Your task to perform on an android device: View the shopping cart on amazon. Search for "apple airpods" on amazon, select the first entry, add it to the cart, then select checkout. Image 0: 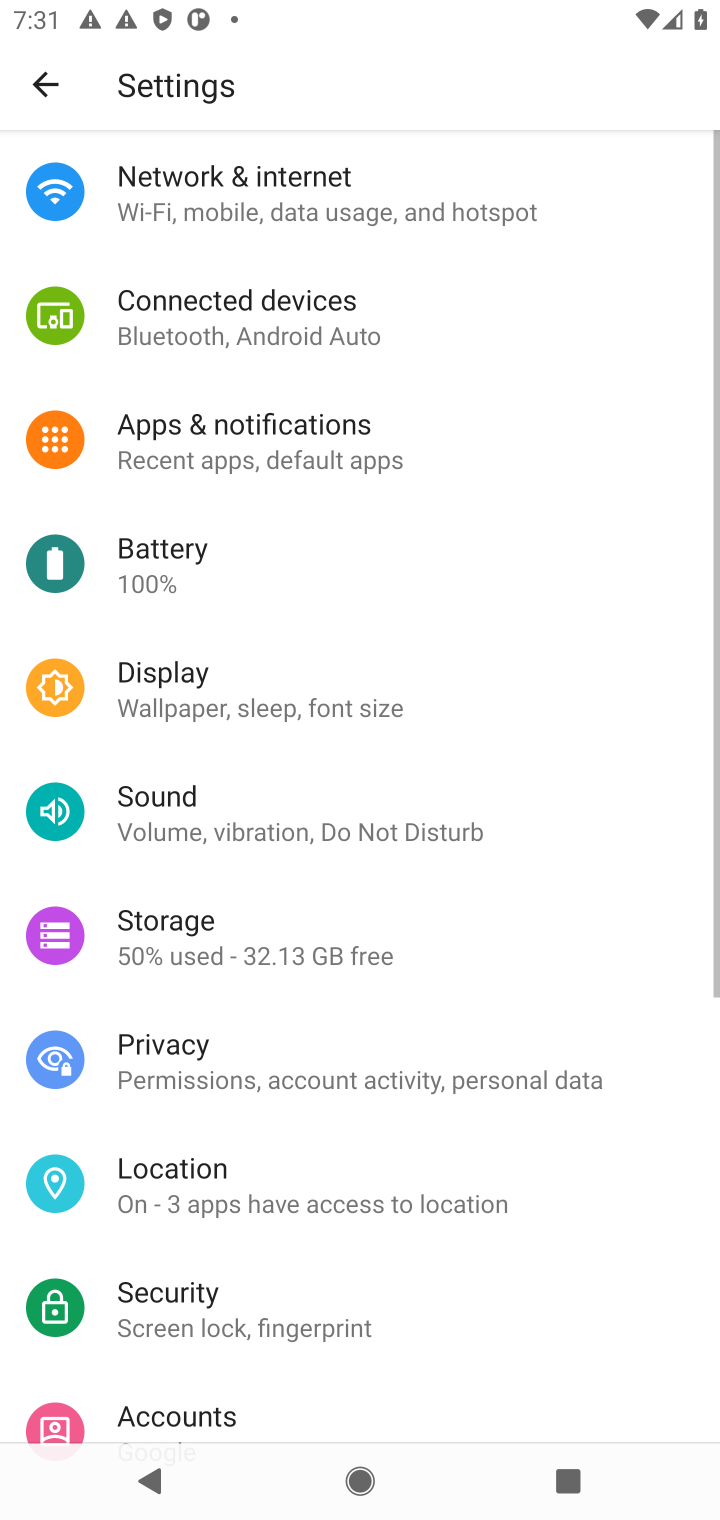
Step 0: press home button
Your task to perform on an android device: View the shopping cart on amazon. Search for "apple airpods" on amazon, select the first entry, add it to the cart, then select checkout. Image 1: 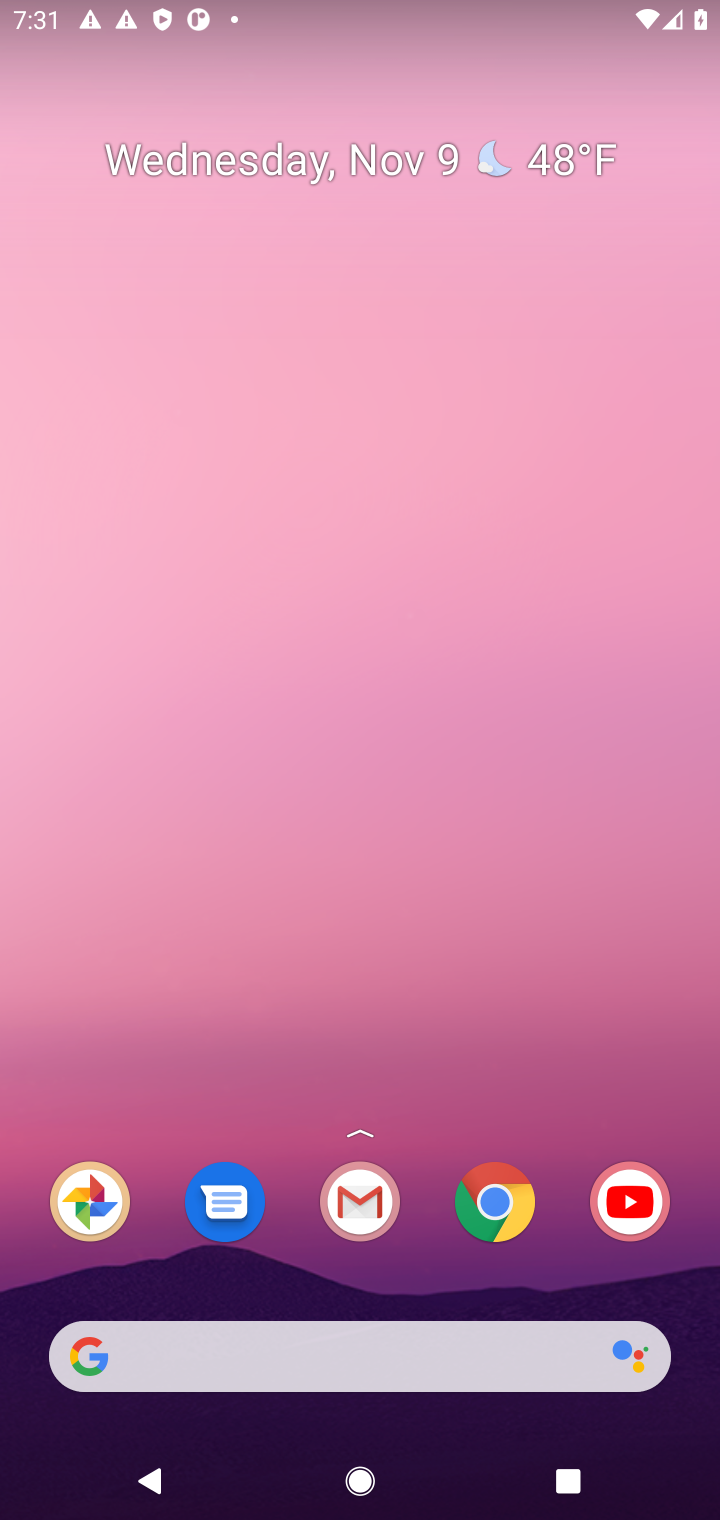
Step 1: click (506, 1212)
Your task to perform on an android device: View the shopping cart on amazon. Search for "apple airpods" on amazon, select the first entry, add it to the cart, then select checkout. Image 2: 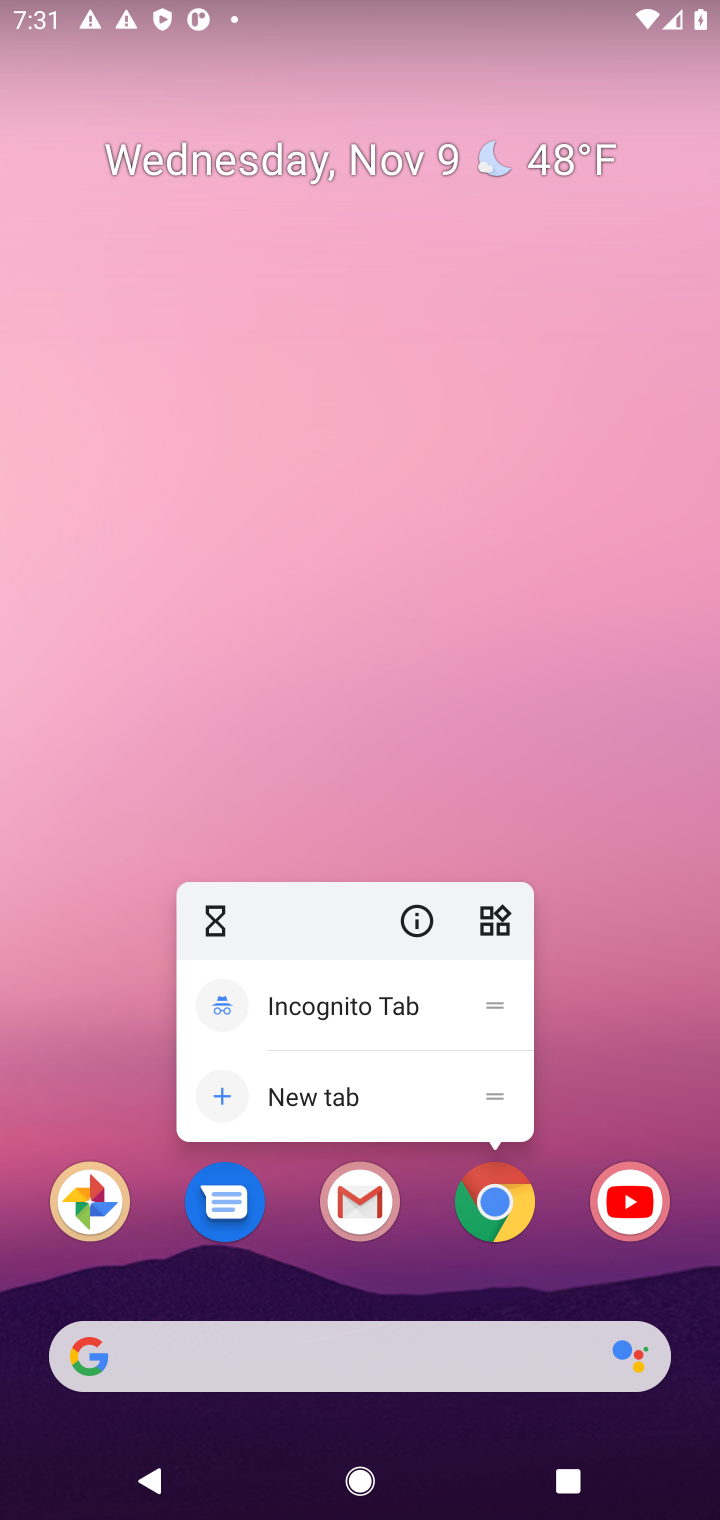
Step 2: click (506, 1212)
Your task to perform on an android device: View the shopping cart on amazon. Search for "apple airpods" on amazon, select the first entry, add it to the cart, then select checkout. Image 3: 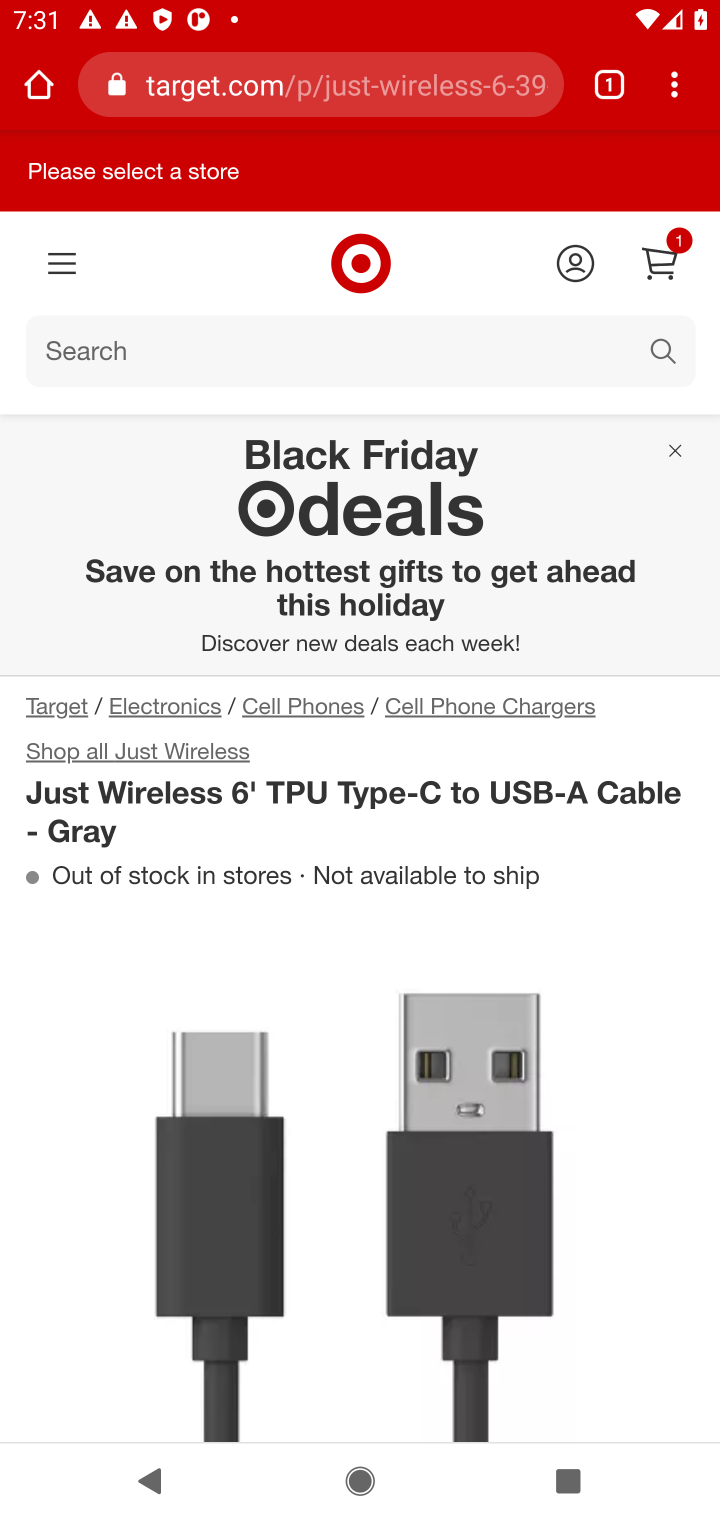
Step 3: click (440, 91)
Your task to perform on an android device: View the shopping cart on amazon. Search for "apple airpods" on amazon, select the first entry, add it to the cart, then select checkout. Image 4: 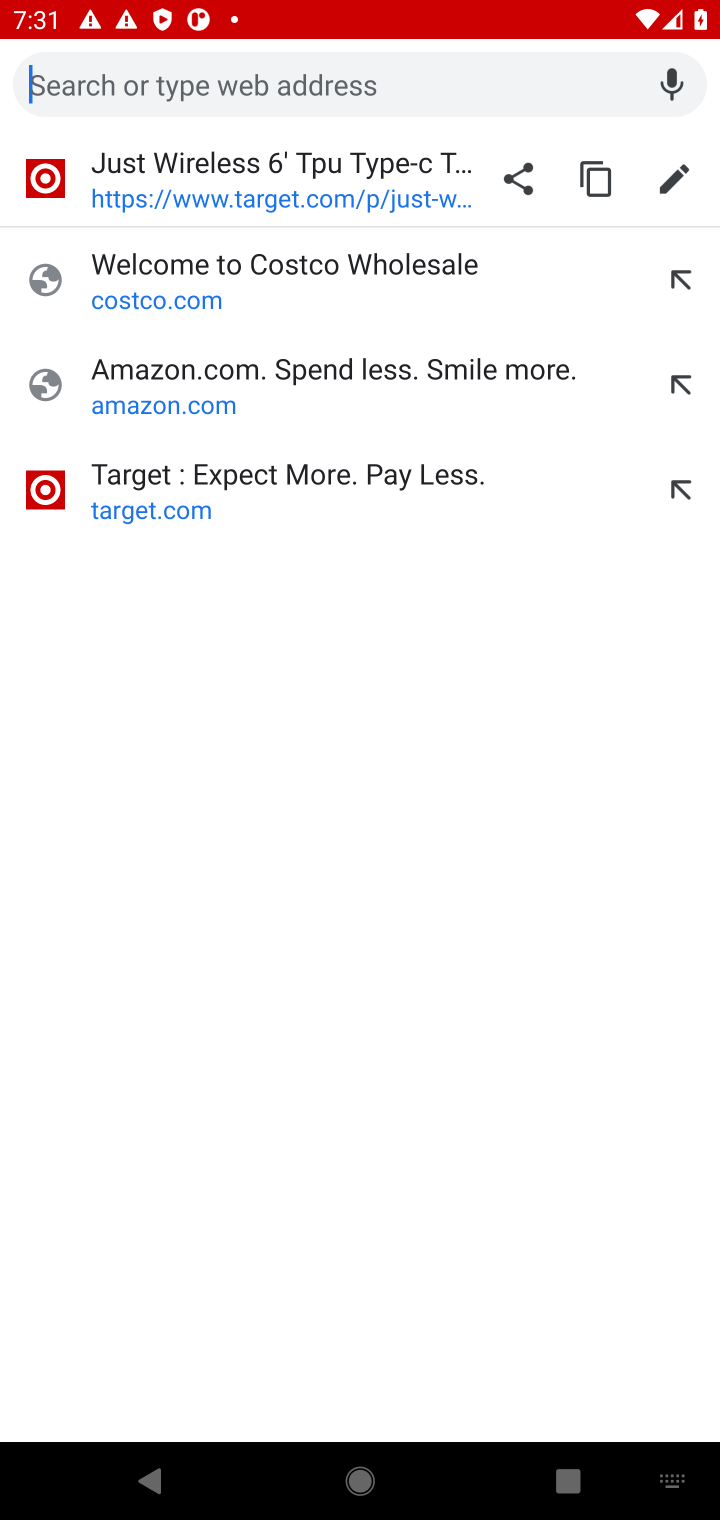
Step 4: click (111, 372)
Your task to perform on an android device: View the shopping cart on amazon. Search for "apple airpods" on amazon, select the first entry, add it to the cart, then select checkout. Image 5: 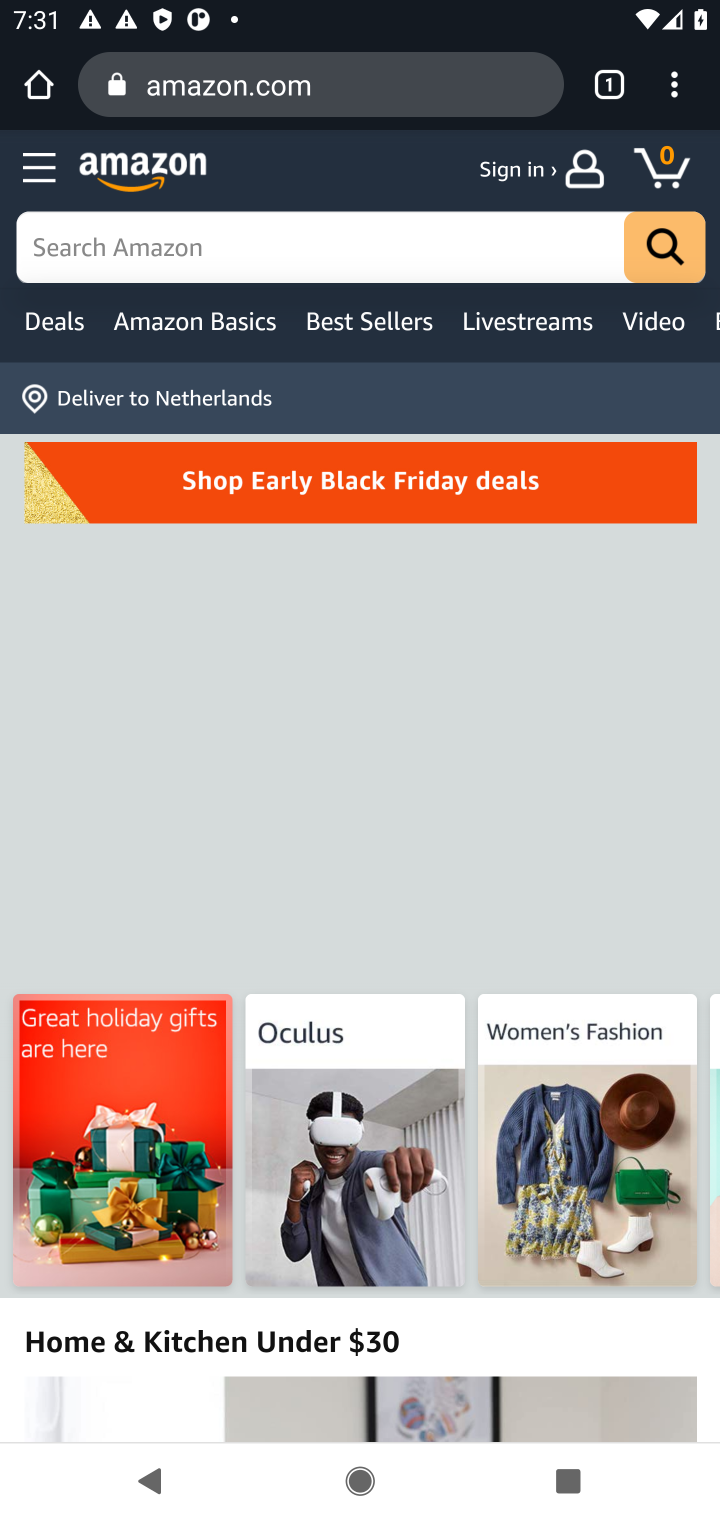
Step 5: click (169, 256)
Your task to perform on an android device: View the shopping cart on amazon. Search for "apple airpods" on amazon, select the first entry, add it to the cart, then select checkout. Image 6: 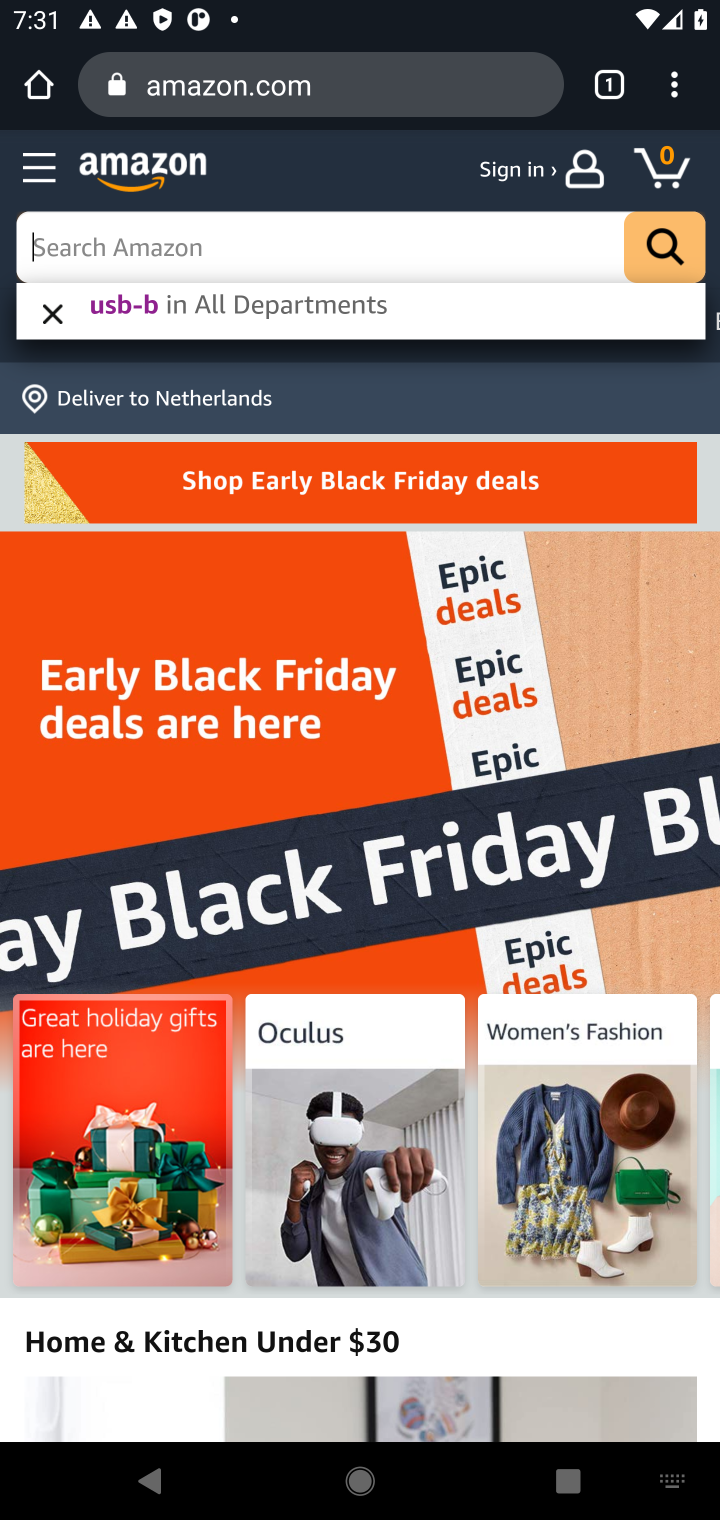
Step 6: type "apple airpods"
Your task to perform on an android device: View the shopping cart on amazon. Search for "apple airpods" on amazon, select the first entry, add it to the cart, then select checkout. Image 7: 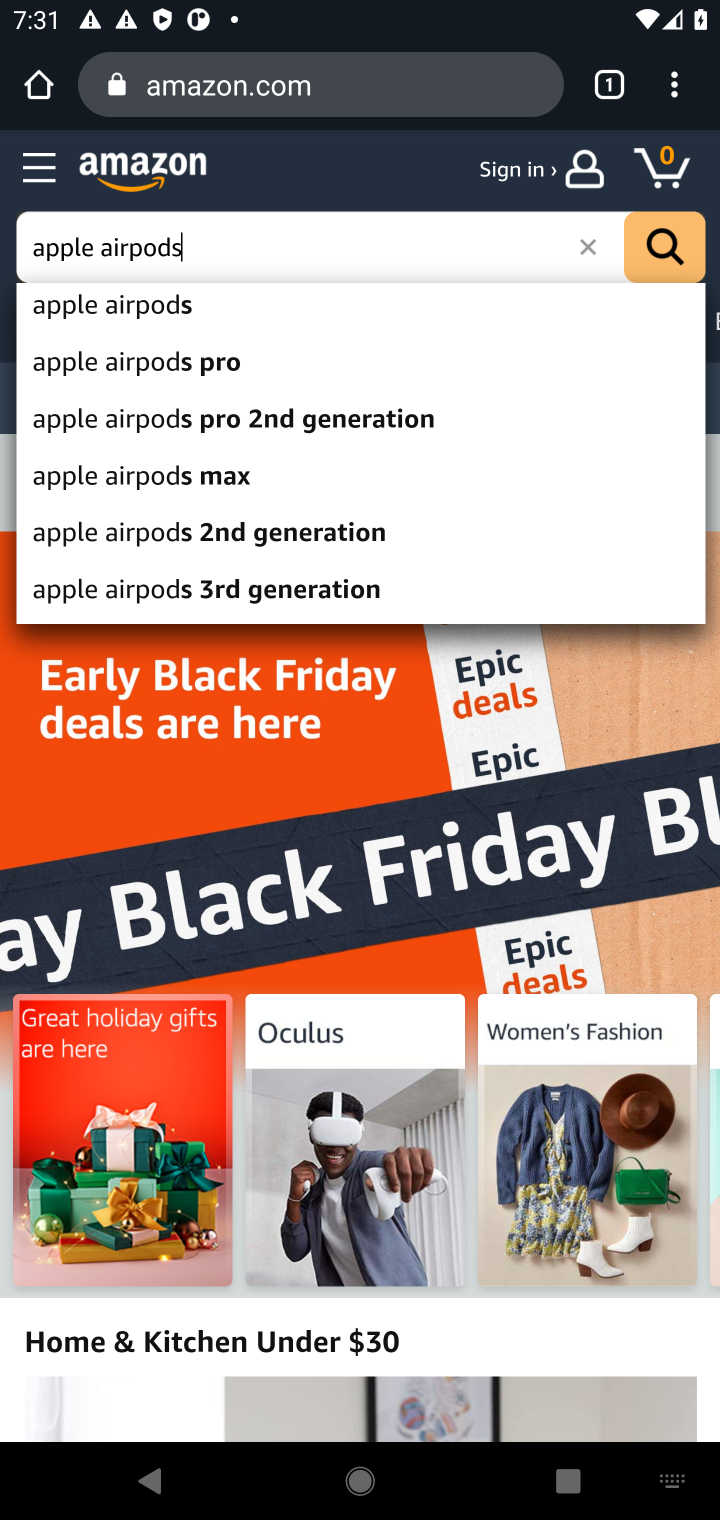
Step 7: press enter
Your task to perform on an android device: View the shopping cart on amazon. Search for "apple airpods" on amazon, select the first entry, add it to the cart, then select checkout. Image 8: 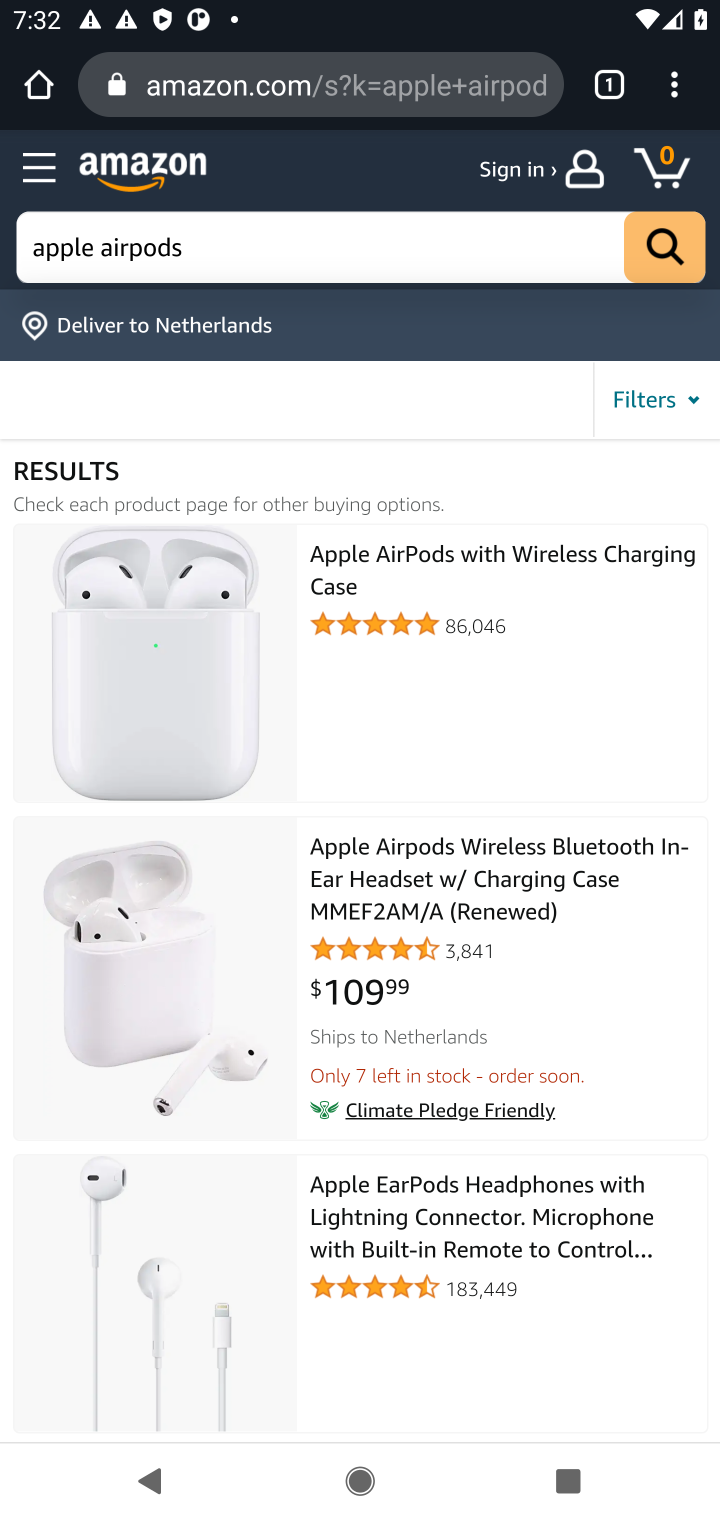
Step 8: click (496, 623)
Your task to perform on an android device: View the shopping cart on amazon. Search for "apple airpods" on amazon, select the first entry, add it to the cart, then select checkout. Image 9: 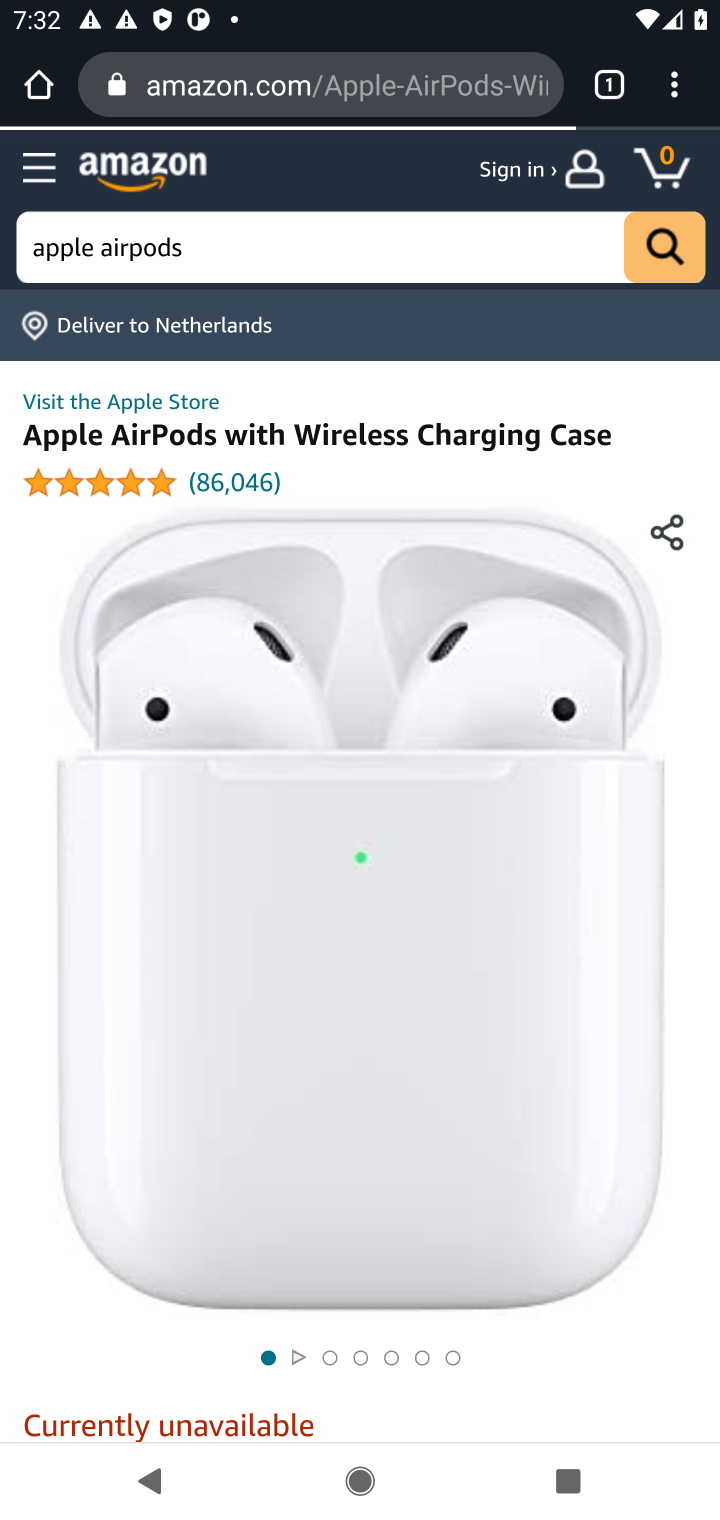
Step 9: task complete